Your task to perform on an android device: all mails in gmail Image 0: 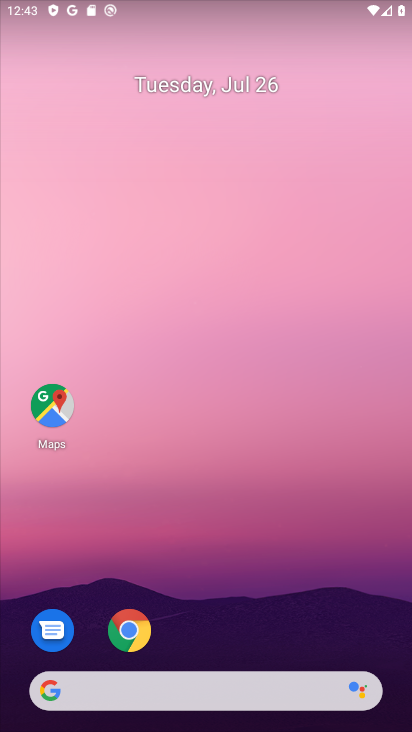
Step 0: drag from (222, 572) to (325, 0)
Your task to perform on an android device: all mails in gmail Image 1: 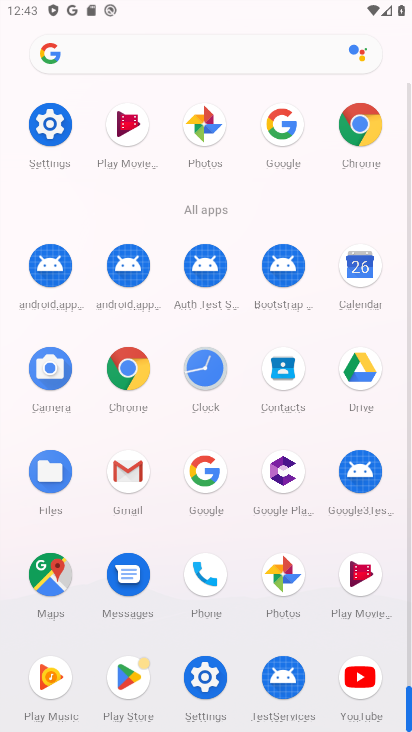
Step 1: click (130, 473)
Your task to perform on an android device: all mails in gmail Image 2: 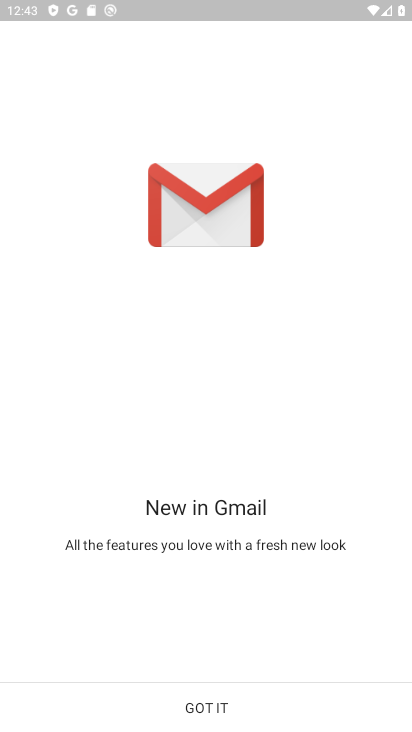
Step 2: click (200, 710)
Your task to perform on an android device: all mails in gmail Image 3: 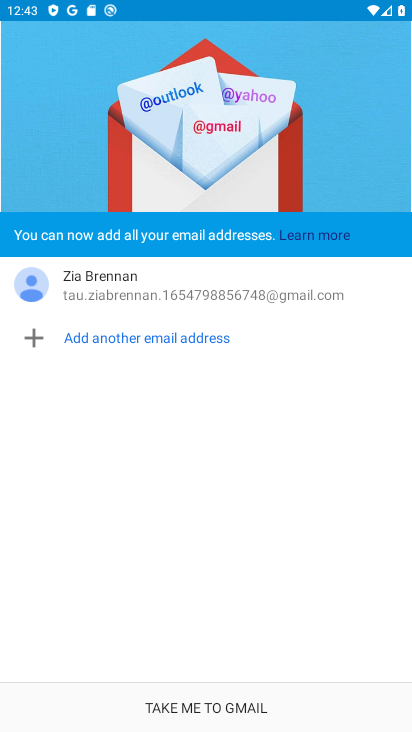
Step 3: click (200, 708)
Your task to perform on an android device: all mails in gmail Image 4: 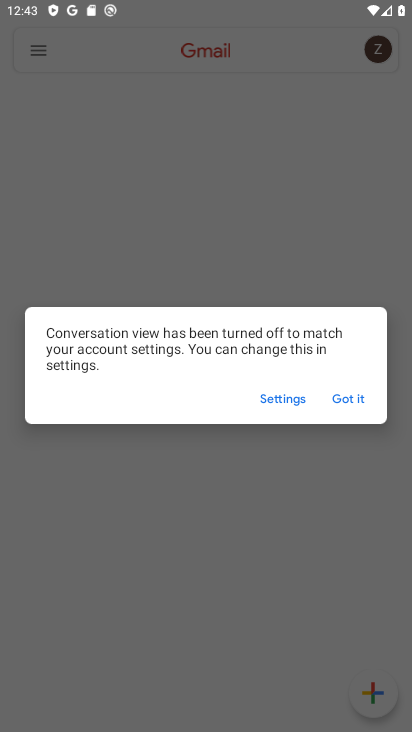
Step 4: click (351, 400)
Your task to perform on an android device: all mails in gmail Image 5: 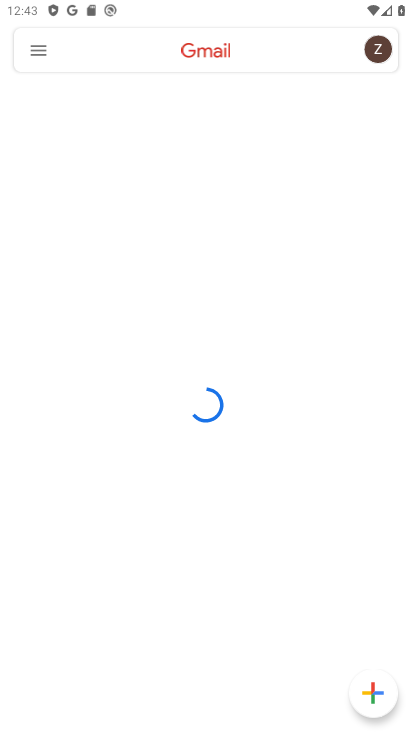
Step 5: click (40, 54)
Your task to perform on an android device: all mails in gmail Image 6: 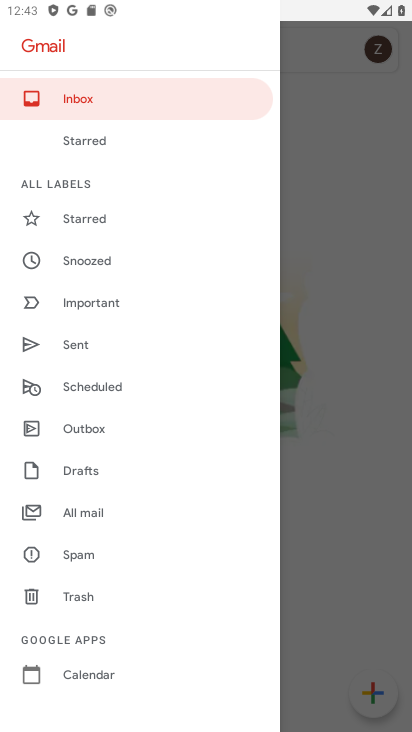
Step 6: drag from (129, 457) to (243, 49)
Your task to perform on an android device: all mails in gmail Image 7: 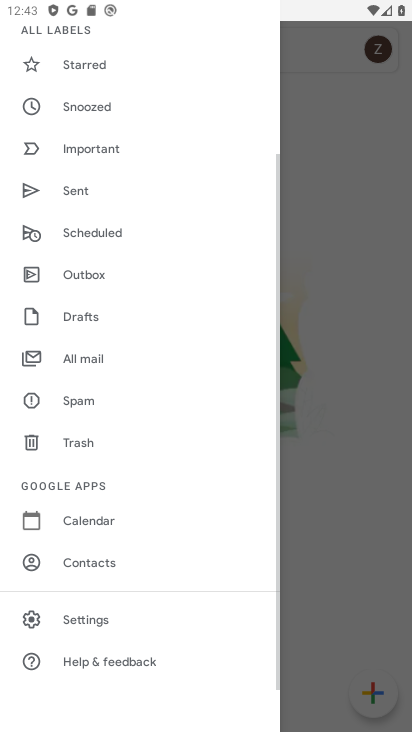
Step 7: click (63, 362)
Your task to perform on an android device: all mails in gmail Image 8: 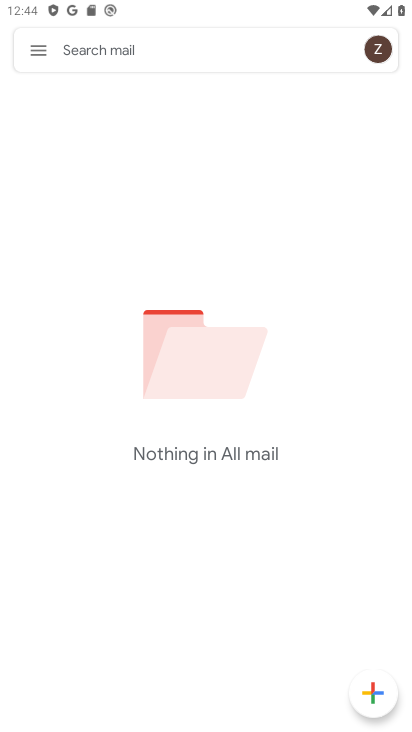
Step 8: task complete